Your task to perform on an android device: What's the weather today? Image 0: 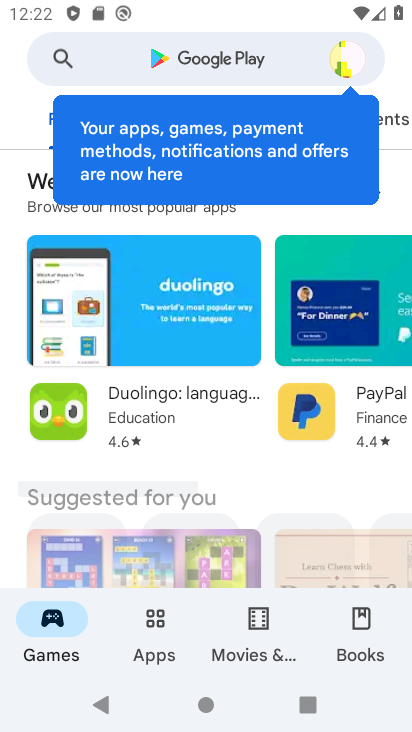
Step 0: press home button
Your task to perform on an android device: What's the weather today? Image 1: 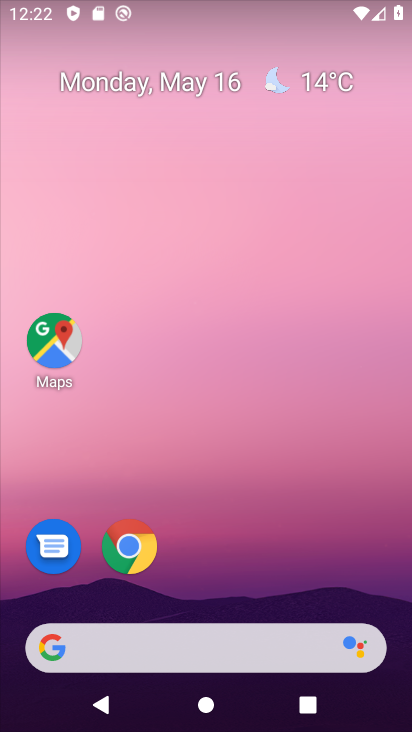
Step 1: click (223, 652)
Your task to perform on an android device: What's the weather today? Image 2: 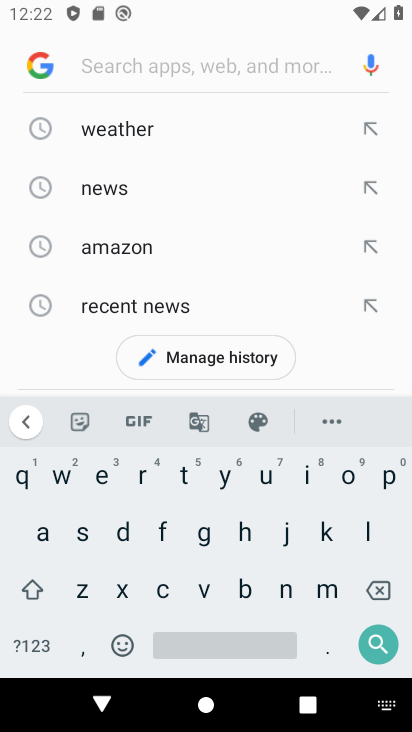
Step 2: click (154, 132)
Your task to perform on an android device: What's the weather today? Image 3: 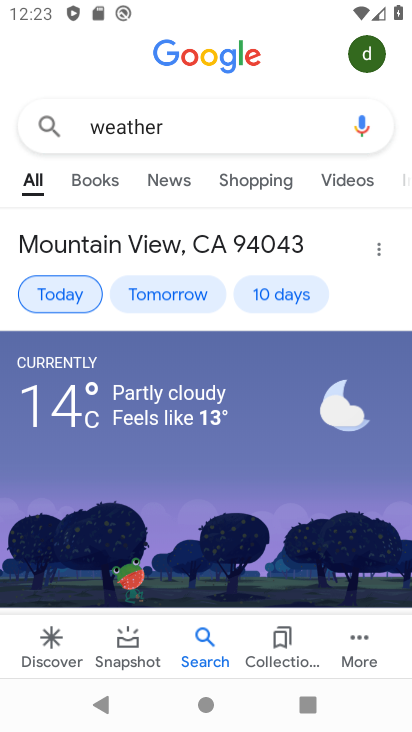
Step 3: task complete